Your task to perform on an android device: turn on notifications settings in the gmail app Image 0: 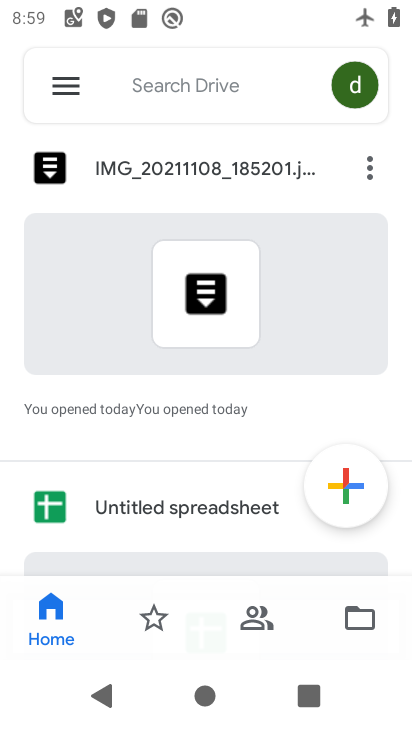
Step 0: press home button
Your task to perform on an android device: turn on notifications settings in the gmail app Image 1: 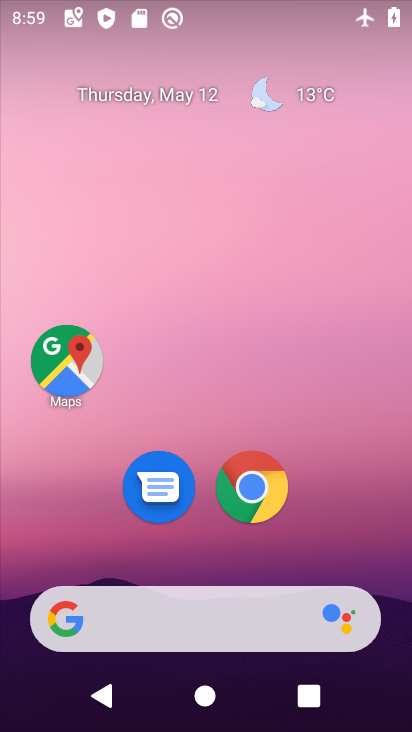
Step 1: drag from (358, 546) to (353, 5)
Your task to perform on an android device: turn on notifications settings in the gmail app Image 2: 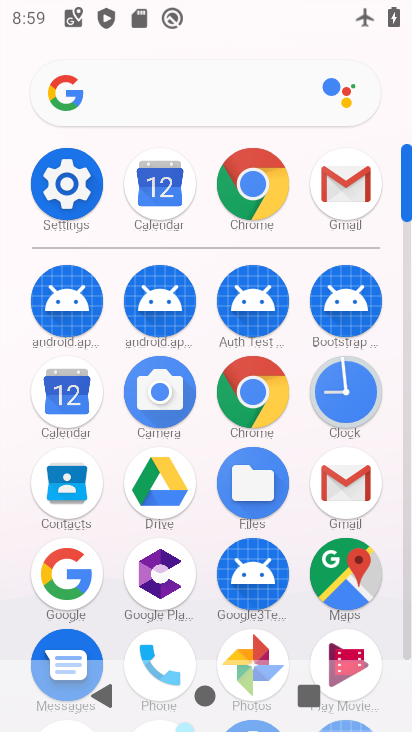
Step 2: click (338, 182)
Your task to perform on an android device: turn on notifications settings in the gmail app Image 3: 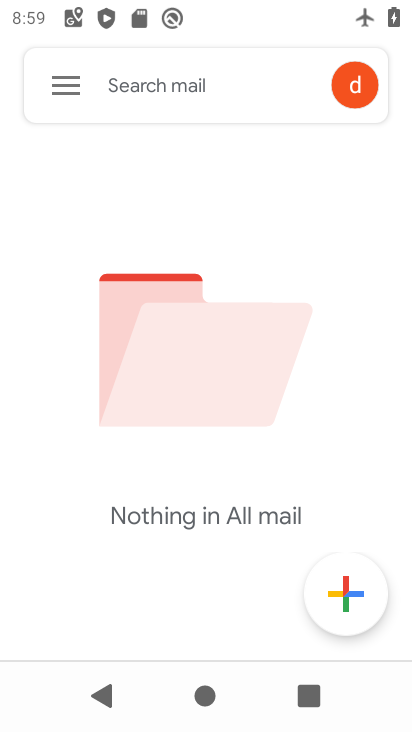
Step 3: click (62, 88)
Your task to perform on an android device: turn on notifications settings in the gmail app Image 4: 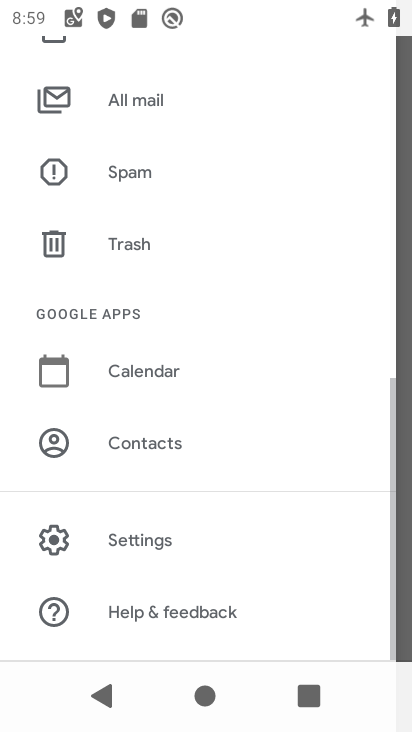
Step 4: click (126, 533)
Your task to perform on an android device: turn on notifications settings in the gmail app Image 5: 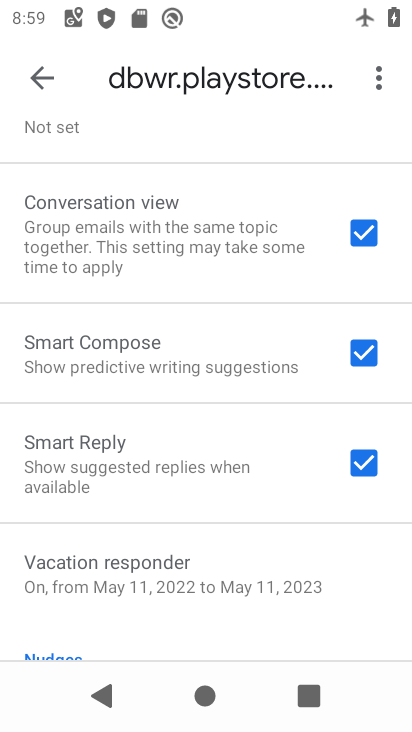
Step 5: click (49, 82)
Your task to perform on an android device: turn on notifications settings in the gmail app Image 6: 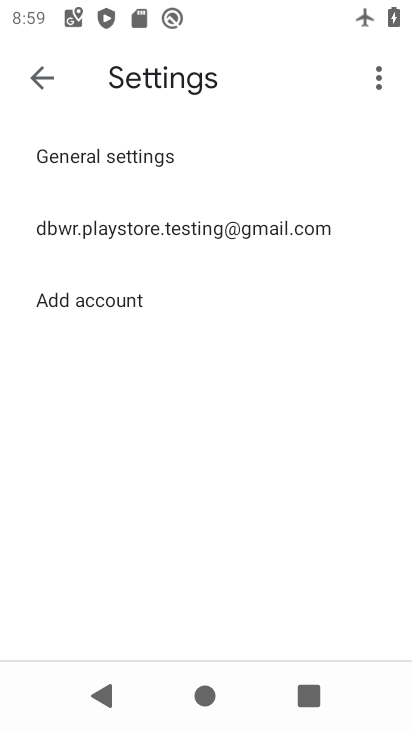
Step 6: click (59, 158)
Your task to perform on an android device: turn on notifications settings in the gmail app Image 7: 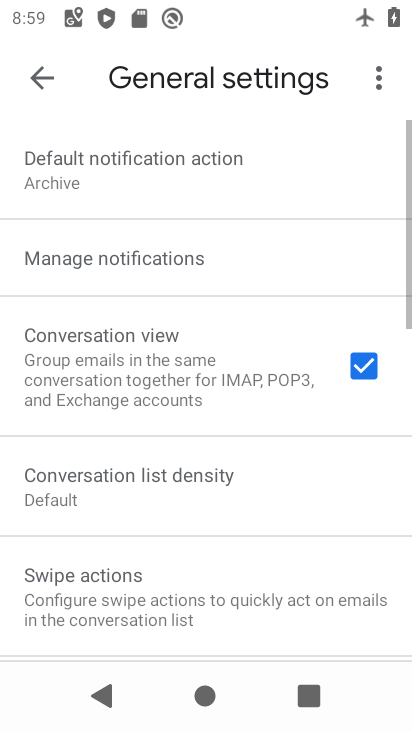
Step 7: click (78, 261)
Your task to perform on an android device: turn on notifications settings in the gmail app Image 8: 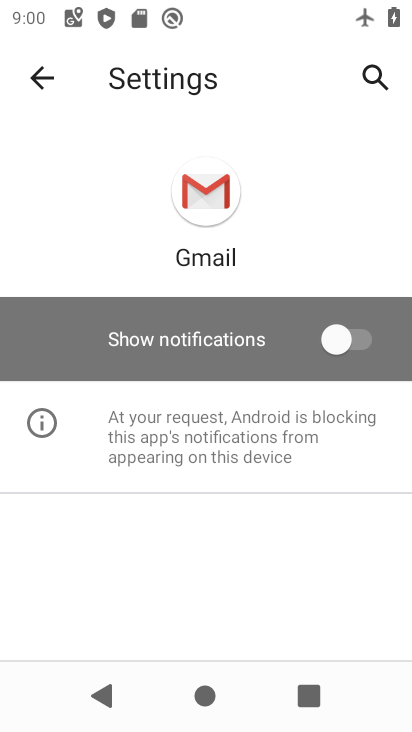
Step 8: click (339, 334)
Your task to perform on an android device: turn on notifications settings in the gmail app Image 9: 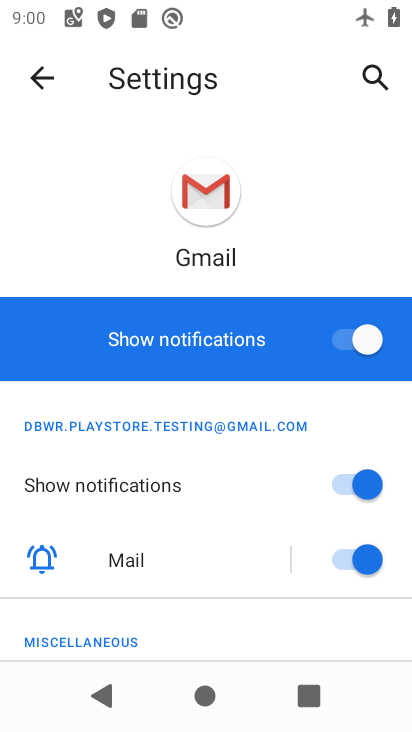
Step 9: task complete